Your task to perform on an android device: change your default location settings in chrome Image 0: 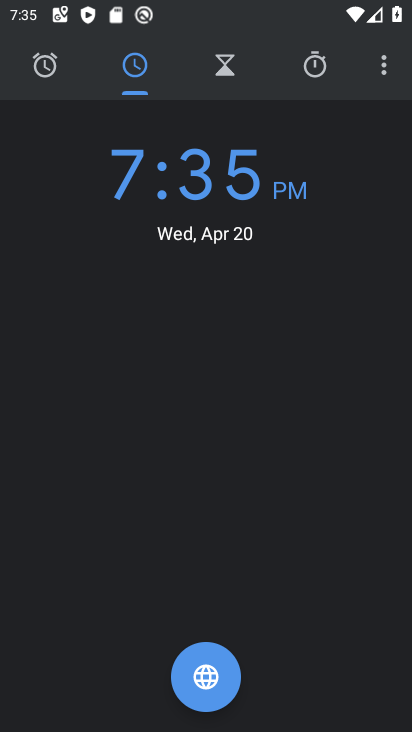
Step 0: press home button
Your task to perform on an android device: change your default location settings in chrome Image 1: 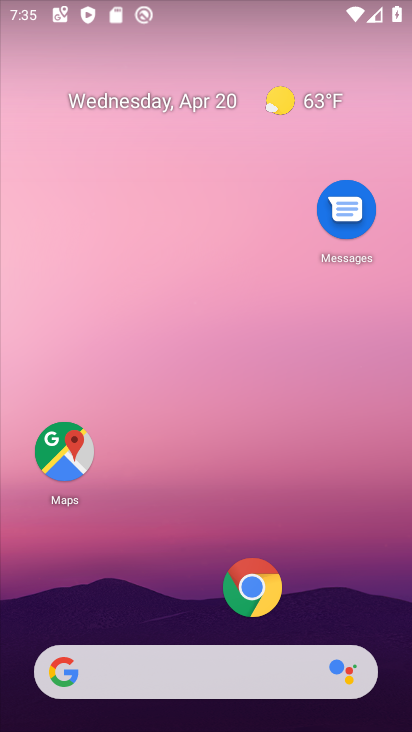
Step 1: drag from (166, 667) to (298, 239)
Your task to perform on an android device: change your default location settings in chrome Image 2: 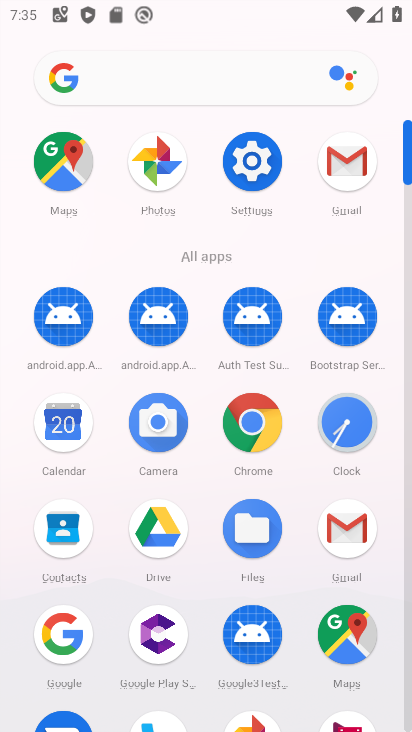
Step 2: click (259, 408)
Your task to perform on an android device: change your default location settings in chrome Image 3: 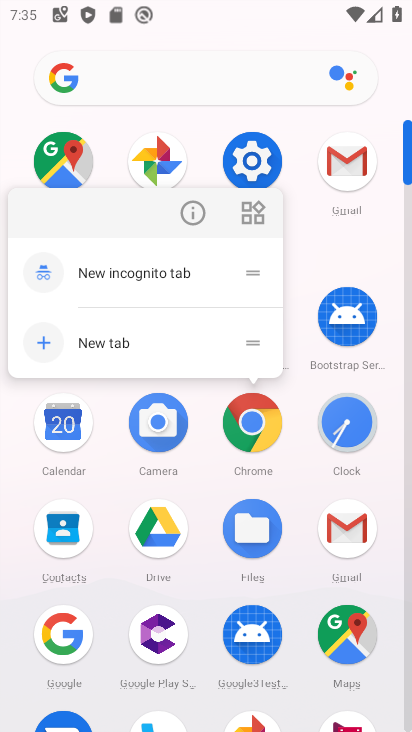
Step 3: click (247, 435)
Your task to perform on an android device: change your default location settings in chrome Image 4: 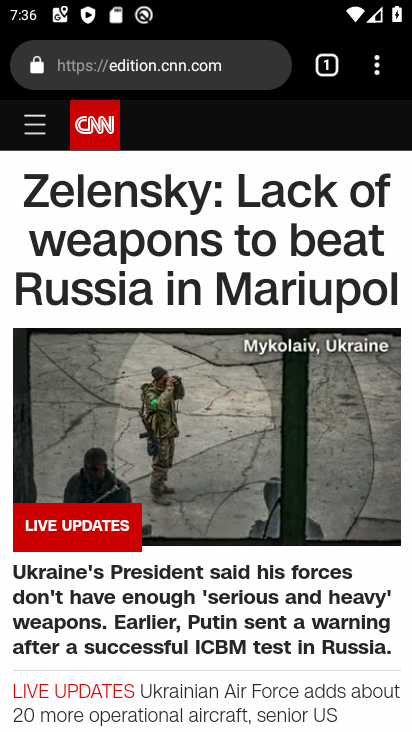
Step 4: click (376, 73)
Your task to perform on an android device: change your default location settings in chrome Image 5: 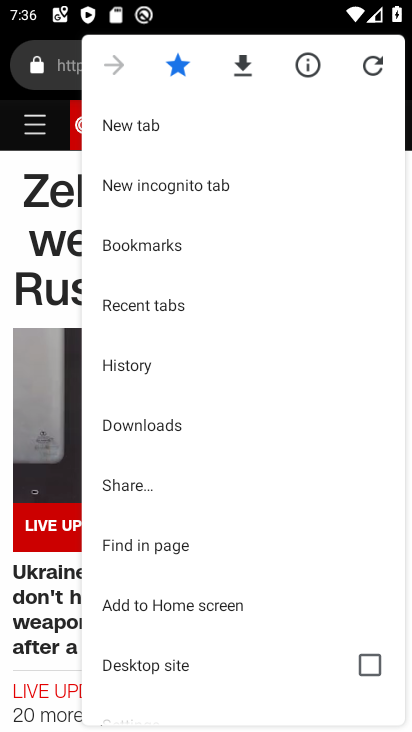
Step 5: drag from (243, 572) to (319, 317)
Your task to perform on an android device: change your default location settings in chrome Image 6: 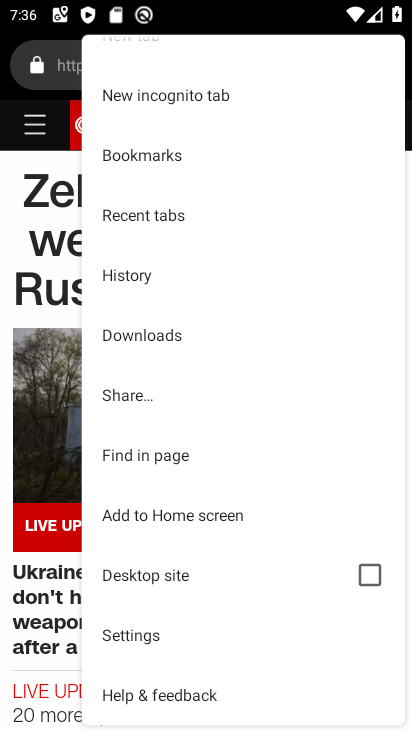
Step 6: click (124, 636)
Your task to perform on an android device: change your default location settings in chrome Image 7: 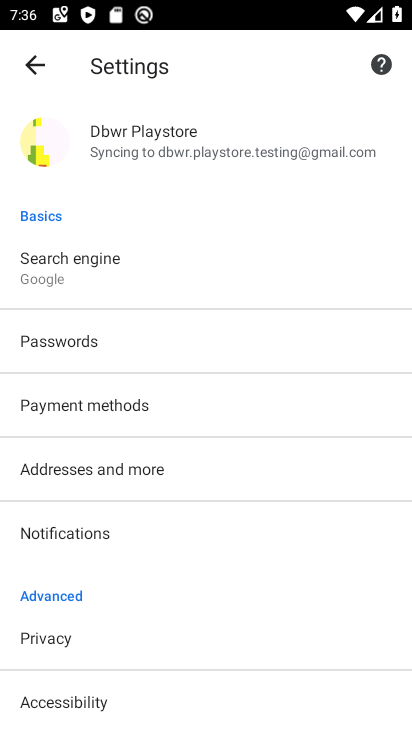
Step 7: drag from (122, 621) to (296, 223)
Your task to perform on an android device: change your default location settings in chrome Image 8: 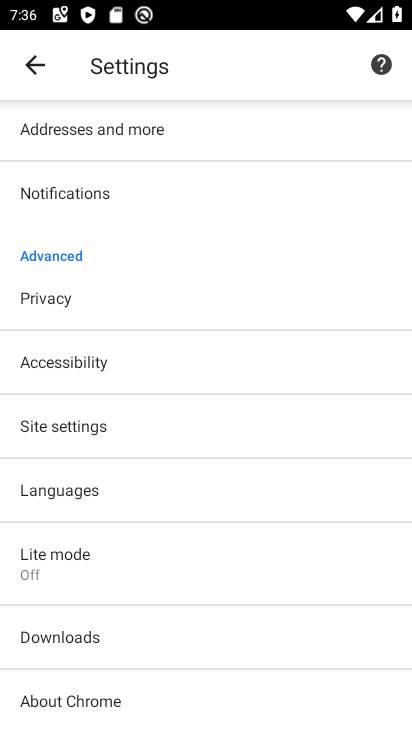
Step 8: click (74, 422)
Your task to perform on an android device: change your default location settings in chrome Image 9: 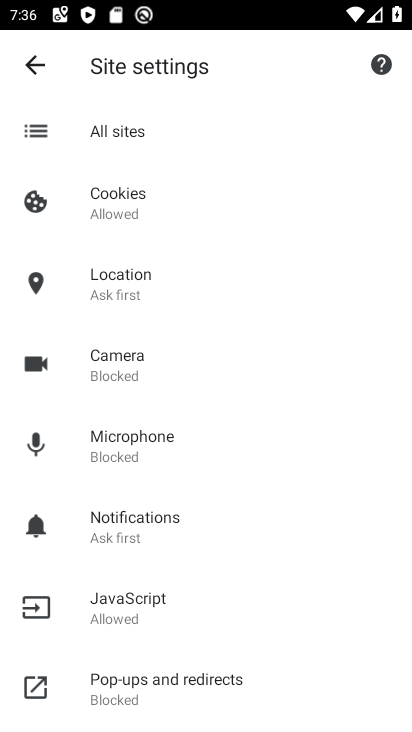
Step 9: click (114, 289)
Your task to perform on an android device: change your default location settings in chrome Image 10: 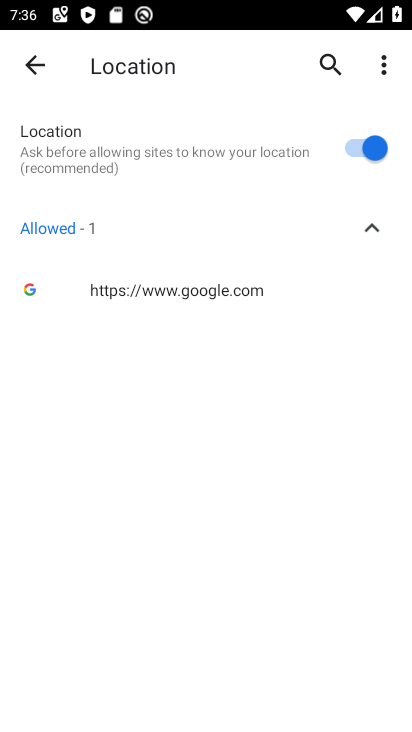
Step 10: click (353, 146)
Your task to perform on an android device: change your default location settings in chrome Image 11: 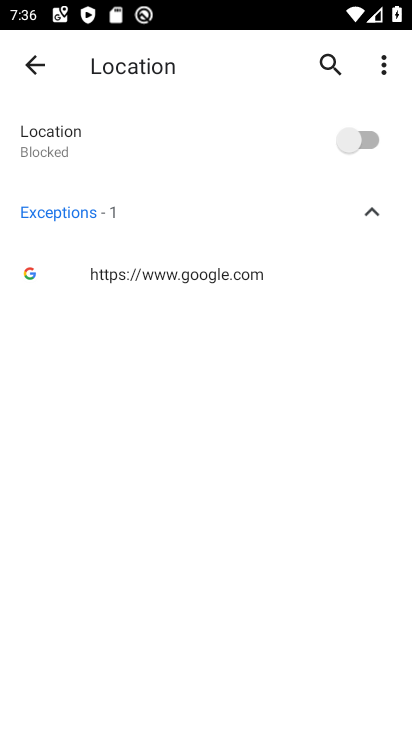
Step 11: task complete